Your task to perform on an android device: Go to ESPN.com Image 0: 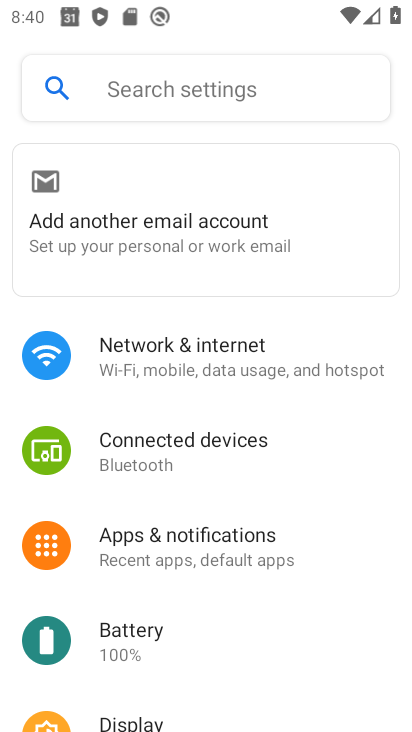
Step 0: press home button
Your task to perform on an android device: Go to ESPN.com Image 1: 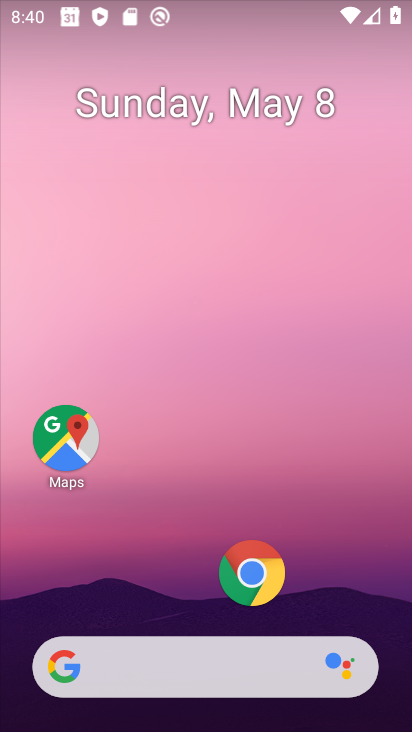
Step 1: click (254, 569)
Your task to perform on an android device: Go to ESPN.com Image 2: 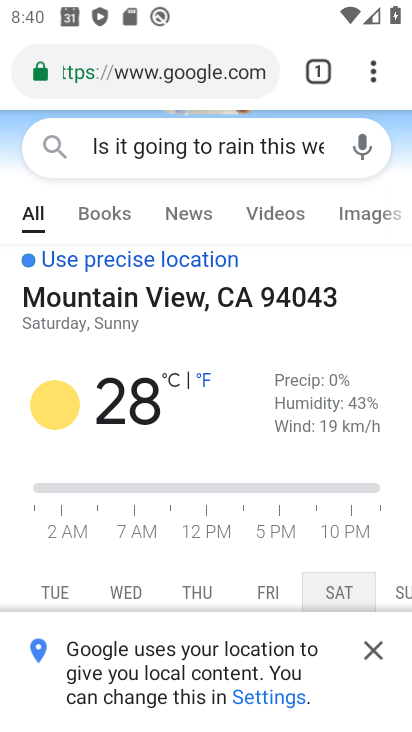
Step 2: click (125, 157)
Your task to perform on an android device: Go to ESPN.com Image 3: 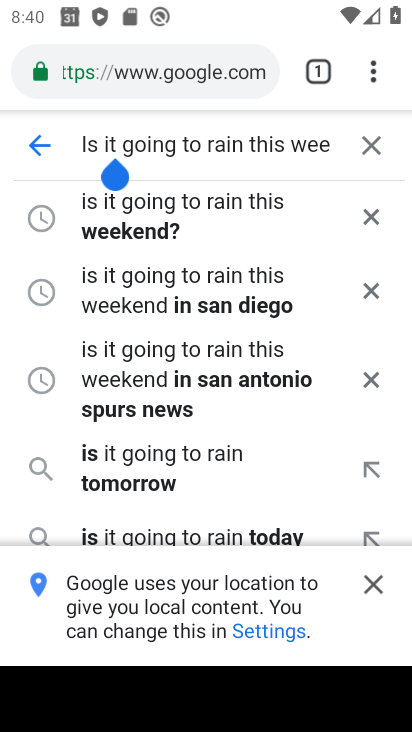
Step 3: click (203, 71)
Your task to perform on an android device: Go to ESPN.com Image 4: 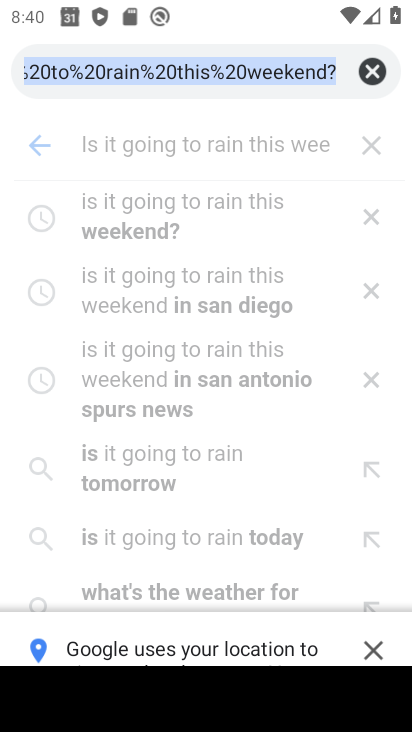
Step 4: type "ESPN.com"
Your task to perform on an android device: Go to ESPN.com Image 5: 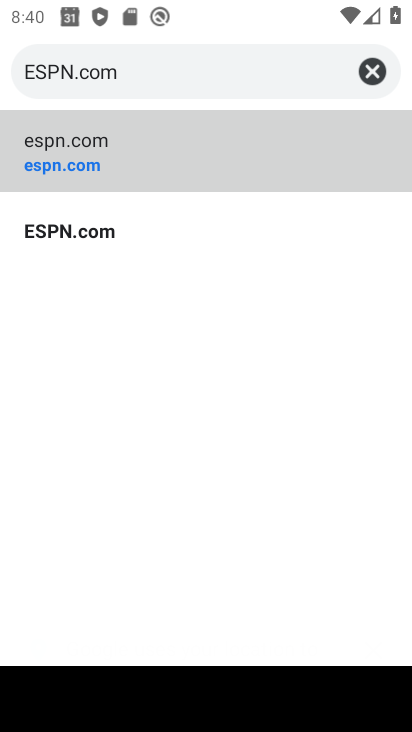
Step 5: click (151, 159)
Your task to perform on an android device: Go to ESPN.com Image 6: 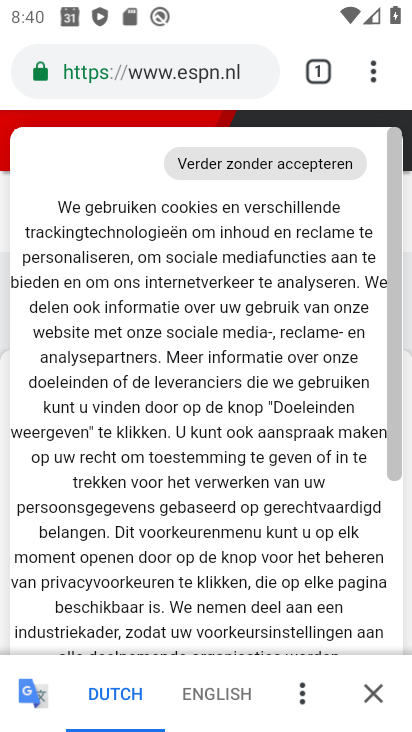
Step 6: task complete